Your task to perform on an android device: Go to display settings Image 0: 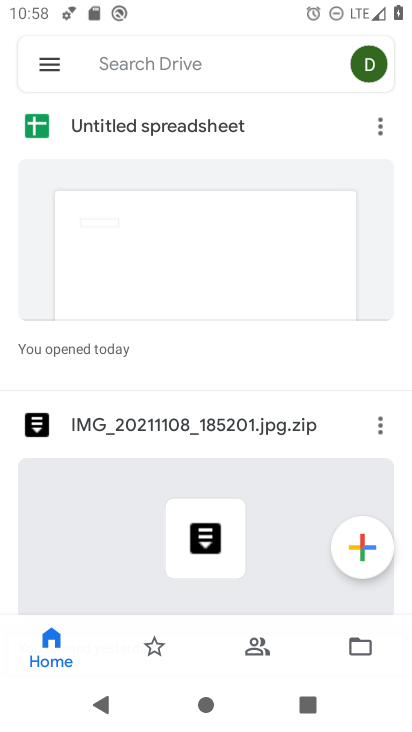
Step 0: press home button
Your task to perform on an android device: Go to display settings Image 1: 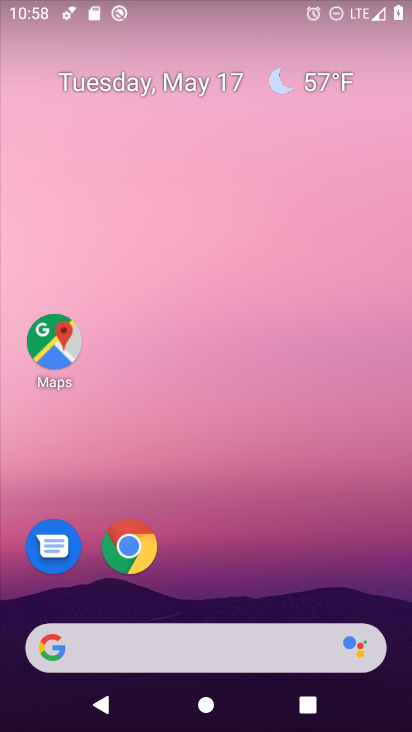
Step 1: drag from (283, 595) to (231, 0)
Your task to perform on an android device: Go to display settings Image 2: 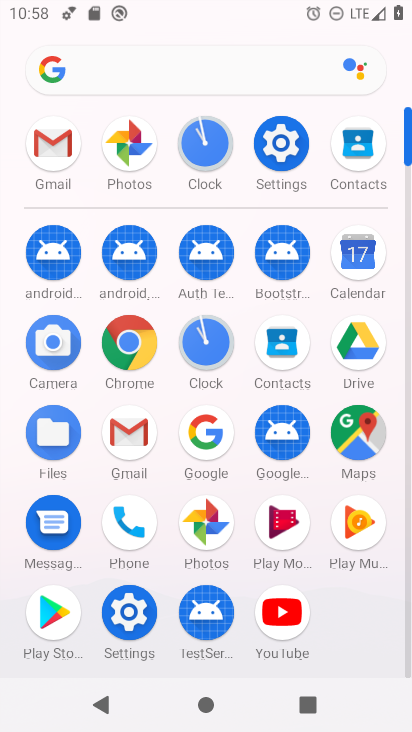
Step 2: click (271, 144)
Your task to perform on an android device: Go to display settings Image 3: 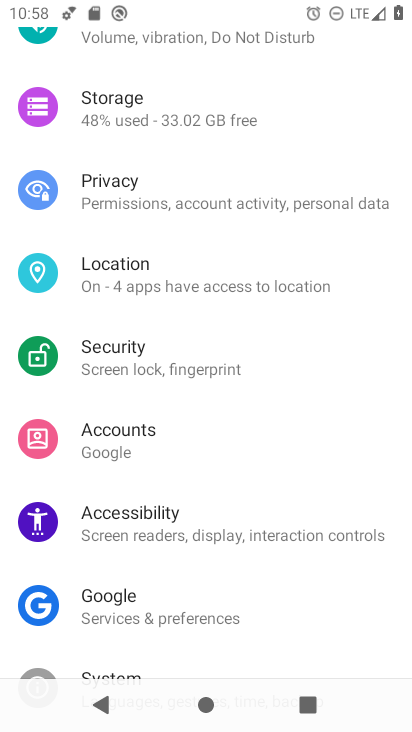
Step 3: drag from (153, 162) to (151, 514)
Your task to perform on an android device: Go to display settings Image 4: 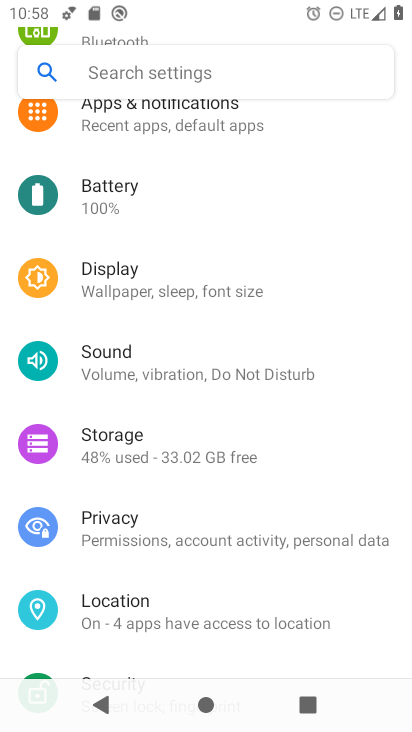
Step 4: click (108, 293)
Your task to perform on an android device: Go to display settings Image 5: 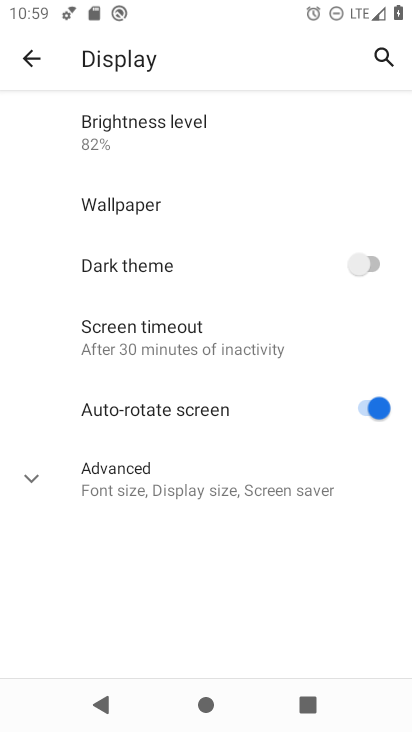
Step 5: task complete